Your task to perform on an android device: toggle improve location accuracy Image 0: 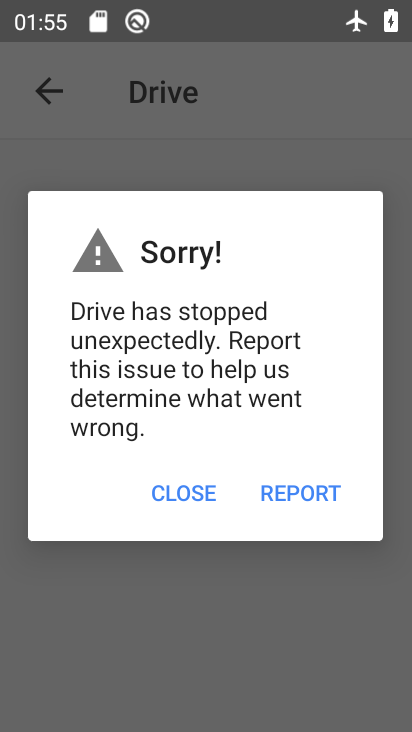
Step 0: press home button
Your task to perform on an android device: toggle improve location accuracy Image 1: 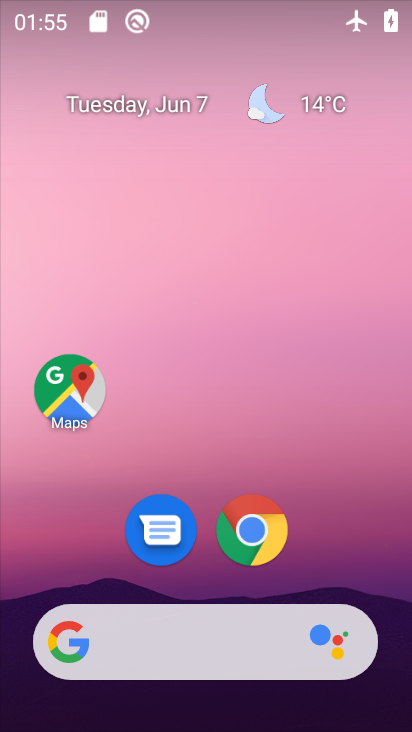
Step 1: drag from (346, 573) to (333, 286)
Your task to perform on an android device: toggle improve location accuracy Image 2: 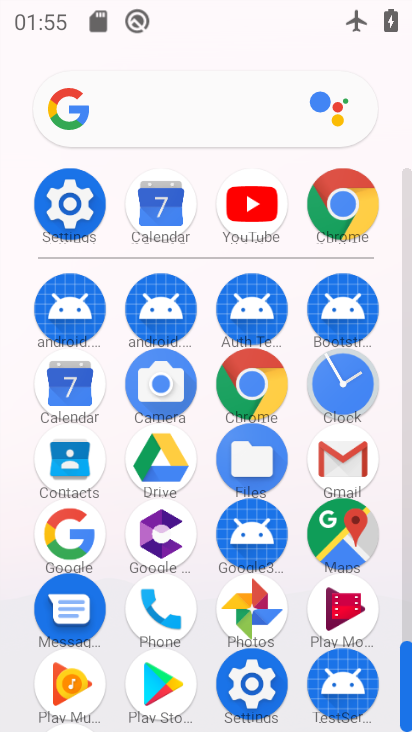
Step 2: click (85, 186)
Your task to perform on an android device: toggle improve location accuracy Image 3: 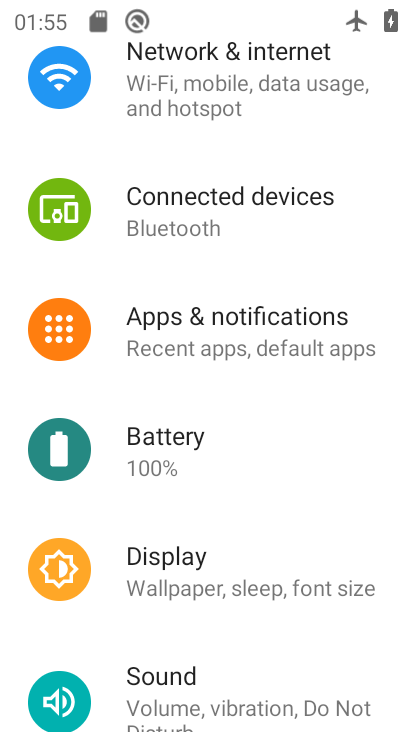
Step 3: drag from (212, 126) to (162, 545)
Your task to perform on an android device: toggle improve location accuracy Image 4: 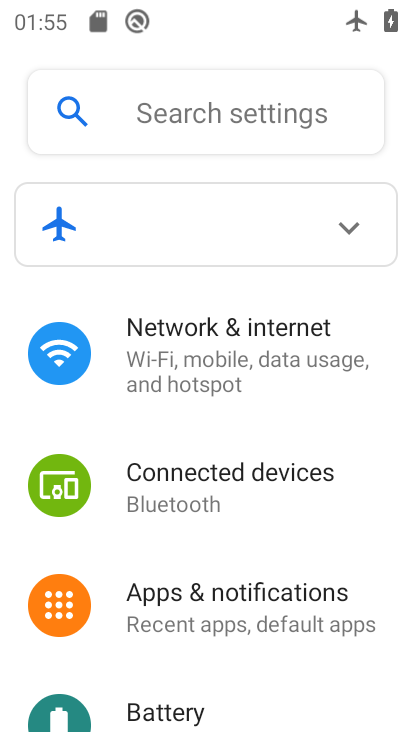
Step 4: drag from (173, 498) to (170, 254)
Your task to perform on an android device: toggle improve location accuracy Image 5: 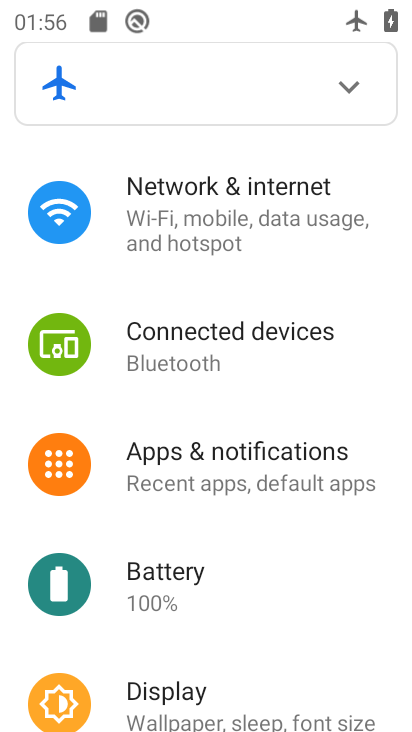
Step 5: drag from (234, 621) to (228, 212)
Your task to perform on an android device: toggle improve location accuracy Image 6: 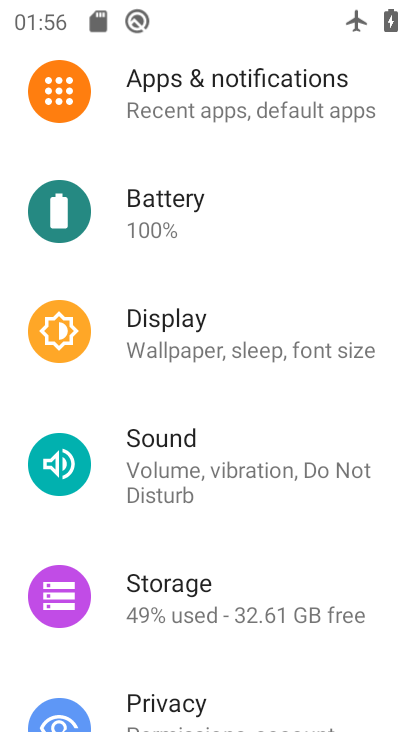
Step 6: drag from (197, 579) to (259, 243)
Your task to perform on an android device: toggle improve location accuracy Image 7: 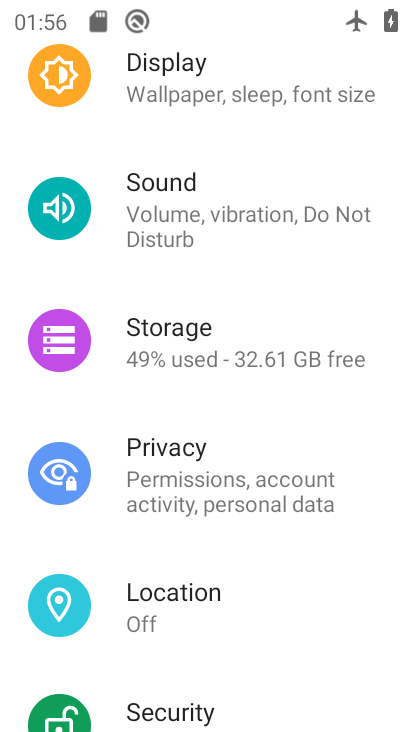
Step 7: click (171, 597)
Your task to perform on an android device: toggle improve location accuracy Image 8: 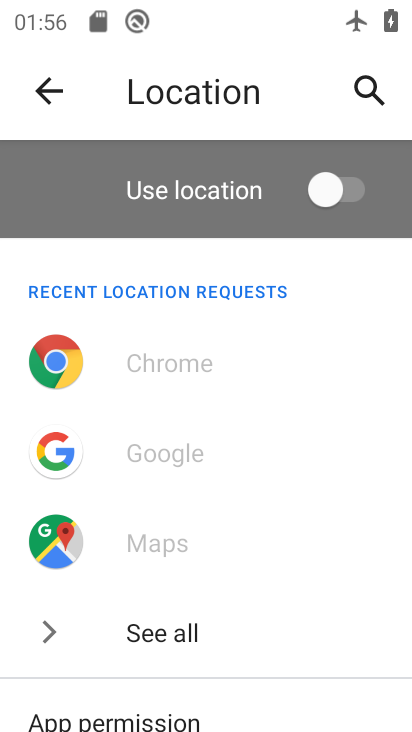
Step 8: drag from (220, 646) to (249, 364)
Your task to perform on an android device: toggle improve location accuracy Image 9: 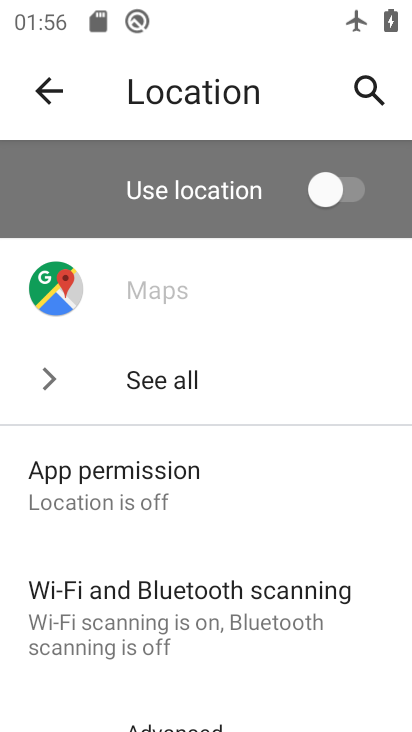
Step 9: drag from (186, 651) to (205, 393)
Your task to perform on an android device: toggle improve location accuracy Image 10: 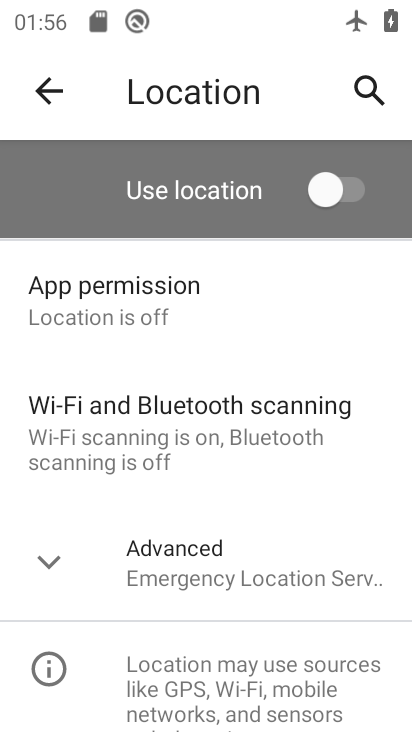
Step 10: click (163, 579)
Your task to perform on an android device: toggle improve location accuracy Image 11: 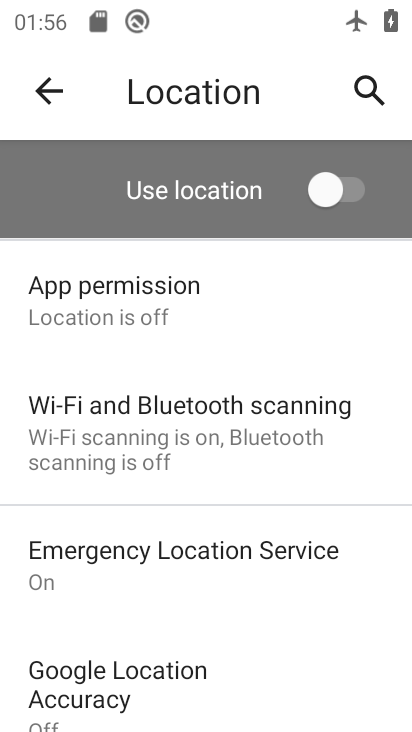
Step 11: drag from (166, 580) to (164, 387)
Your task to perform on an android device: toggle improve location accuracy Image 12: 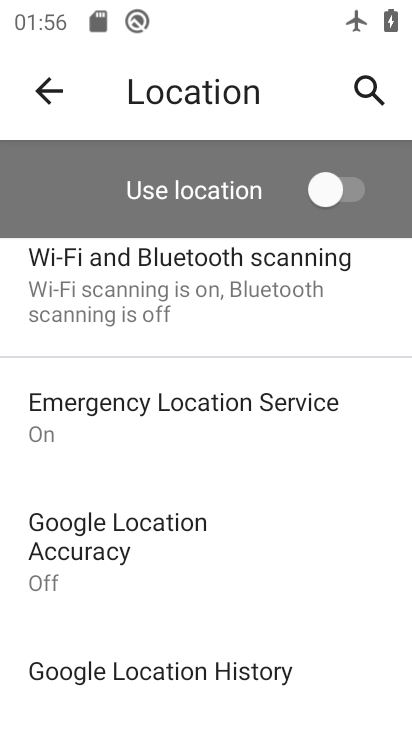
Step 12: click (130, 522)
Your task to perform on an android device: toggle improve location accuracy Image 13: 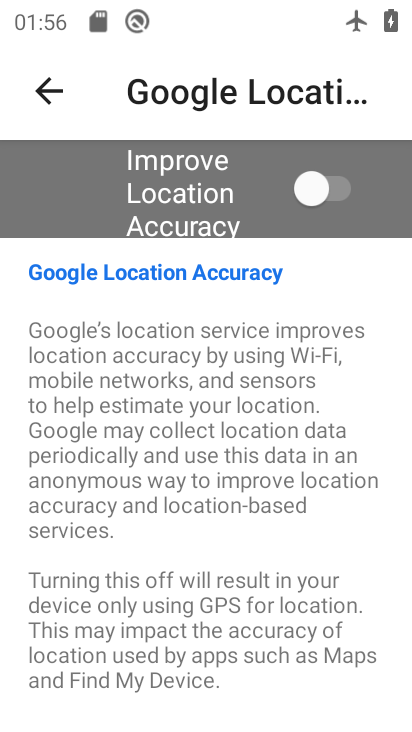
Step 13: click (338, 195)
Your task to perform on an android device: toggle improve location accuracy Image 14: 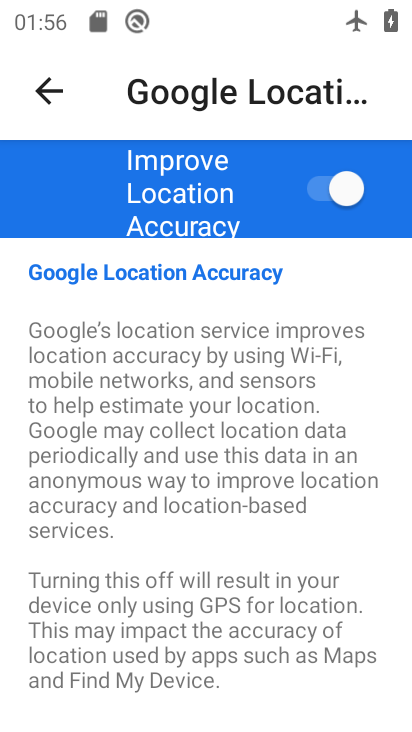
Step 14: task complete